Your task to perform on an android device: toggle notifications settings in the gmail app Image 0: 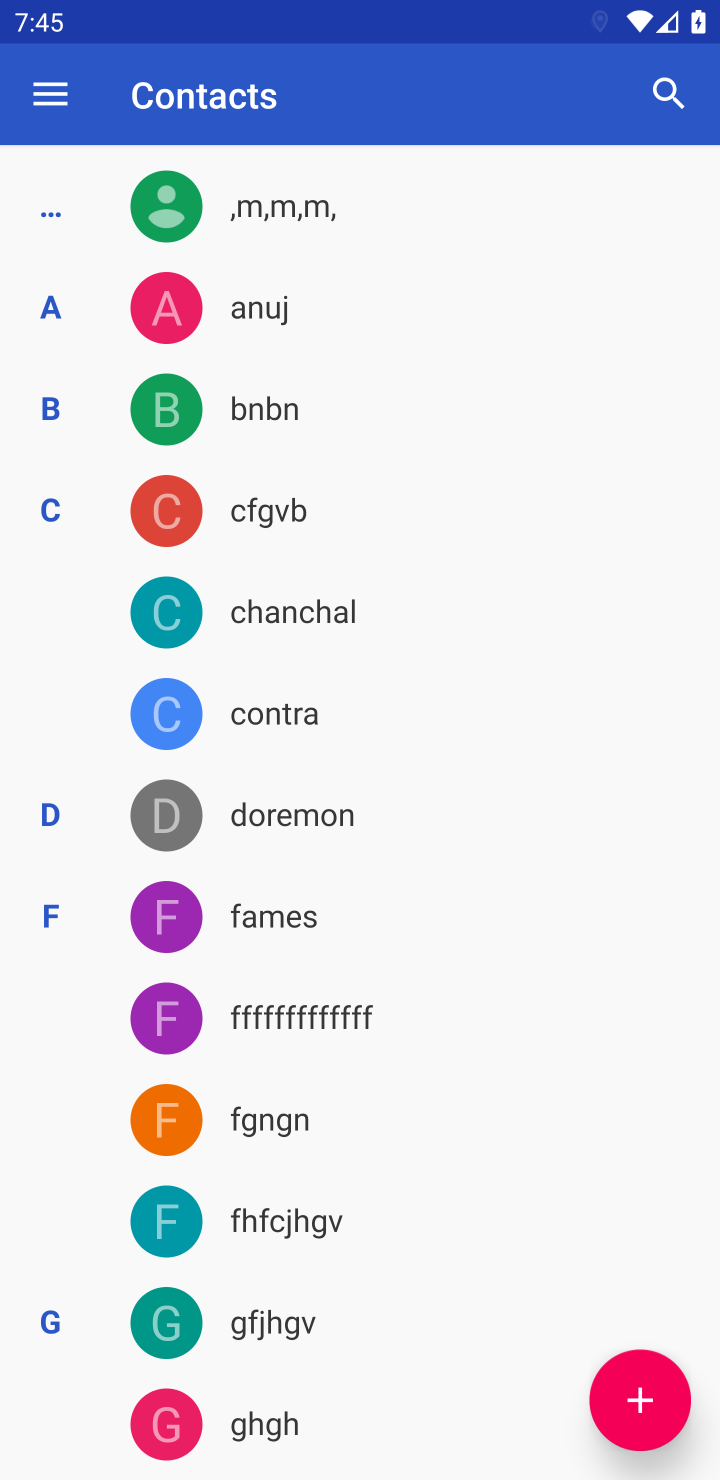
Step 0: press home button
Your task to perform on an android device: toggle notifications settings in the gmail app Image 1: 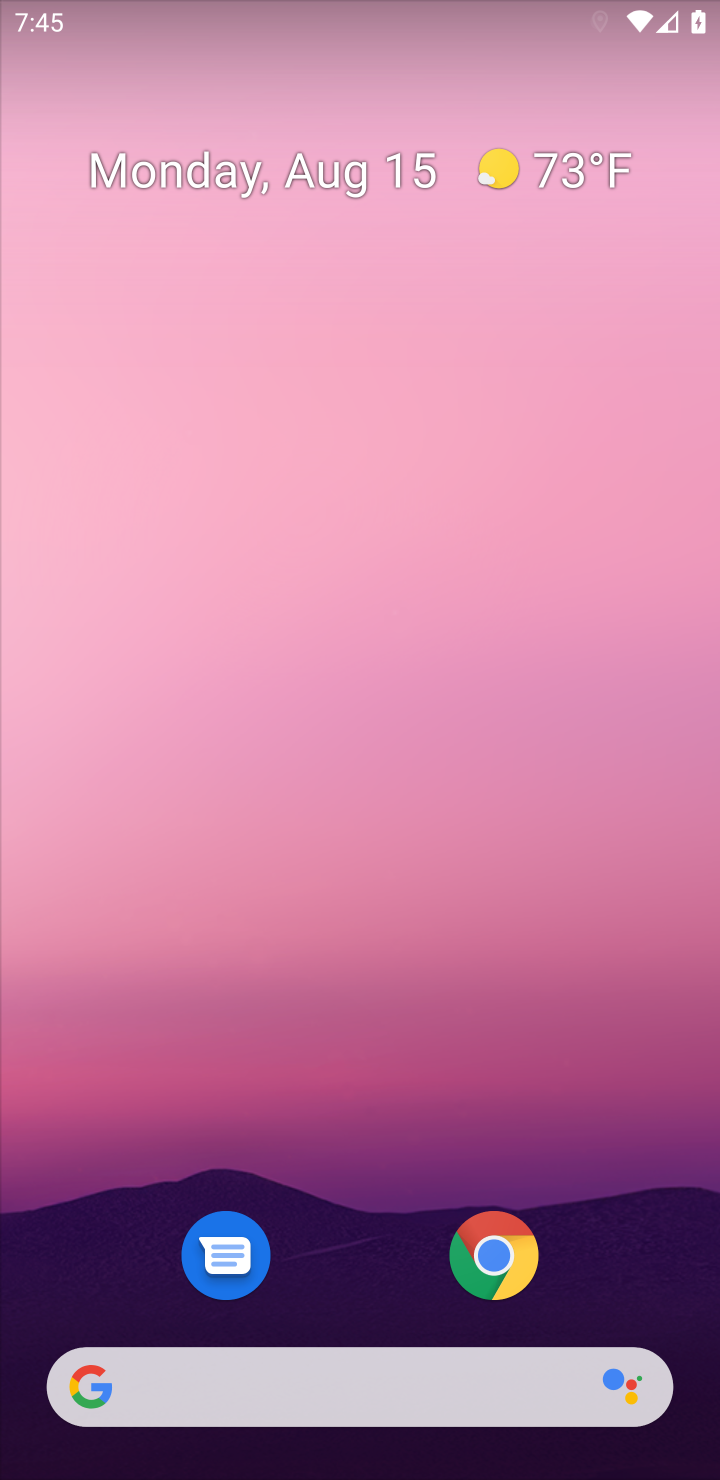
Step 1: drag from (376, 1317) to (455, 67)
Your task to perform on an android device: toggle notifications settings in the gmail app Image 2: 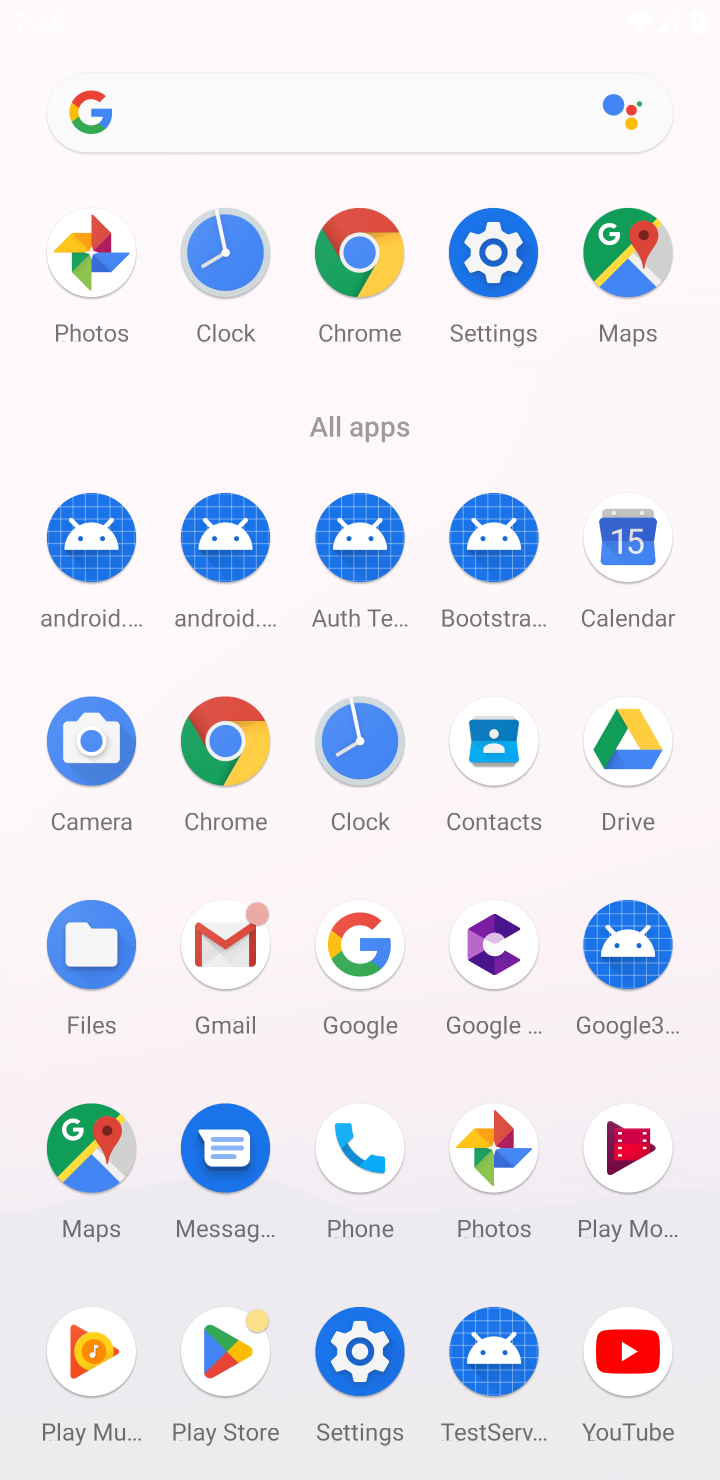
Step 2: click (212, 937)
Your task to perform on an android device: toggle notifications settings in the gmail app Image 3: 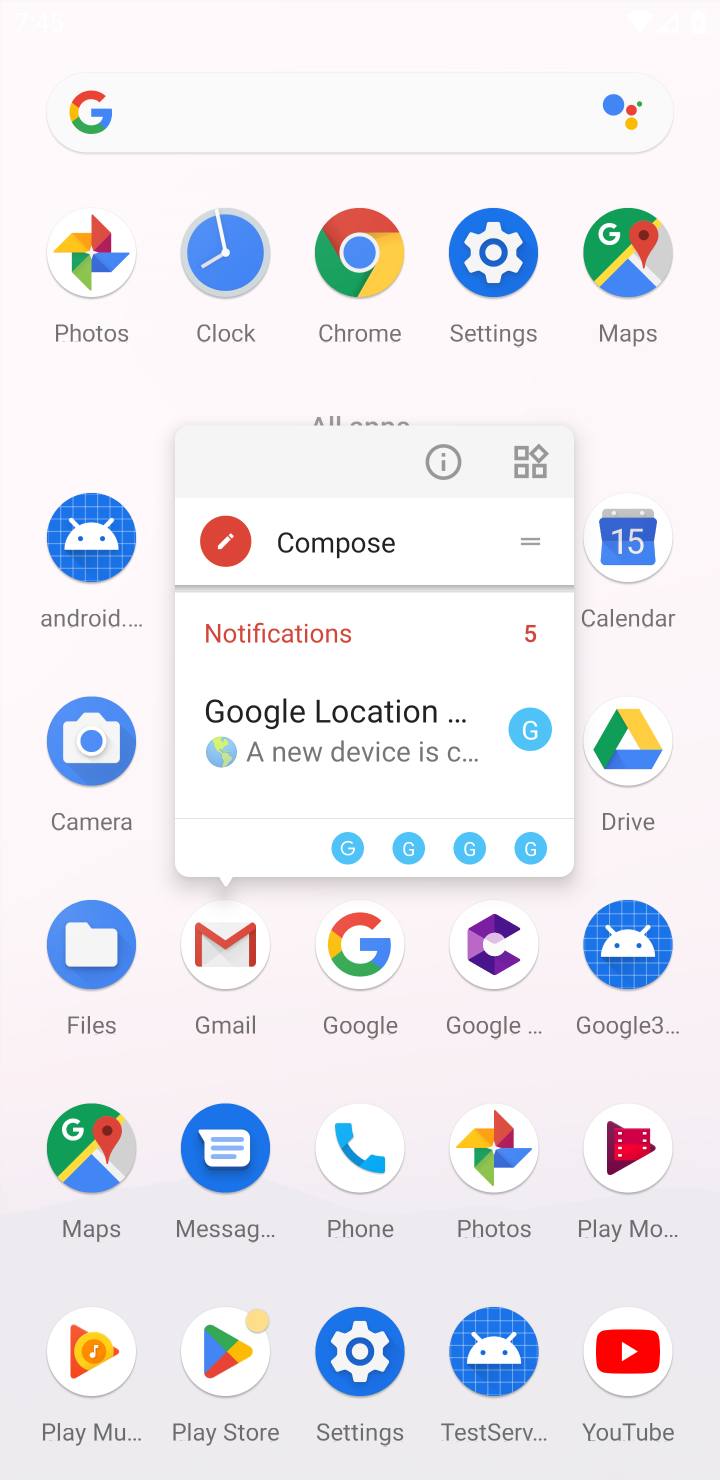
Step 3: click (222, 938)
Your task to perform on an android device: toggle notifications settings in the gmail app Image 4: 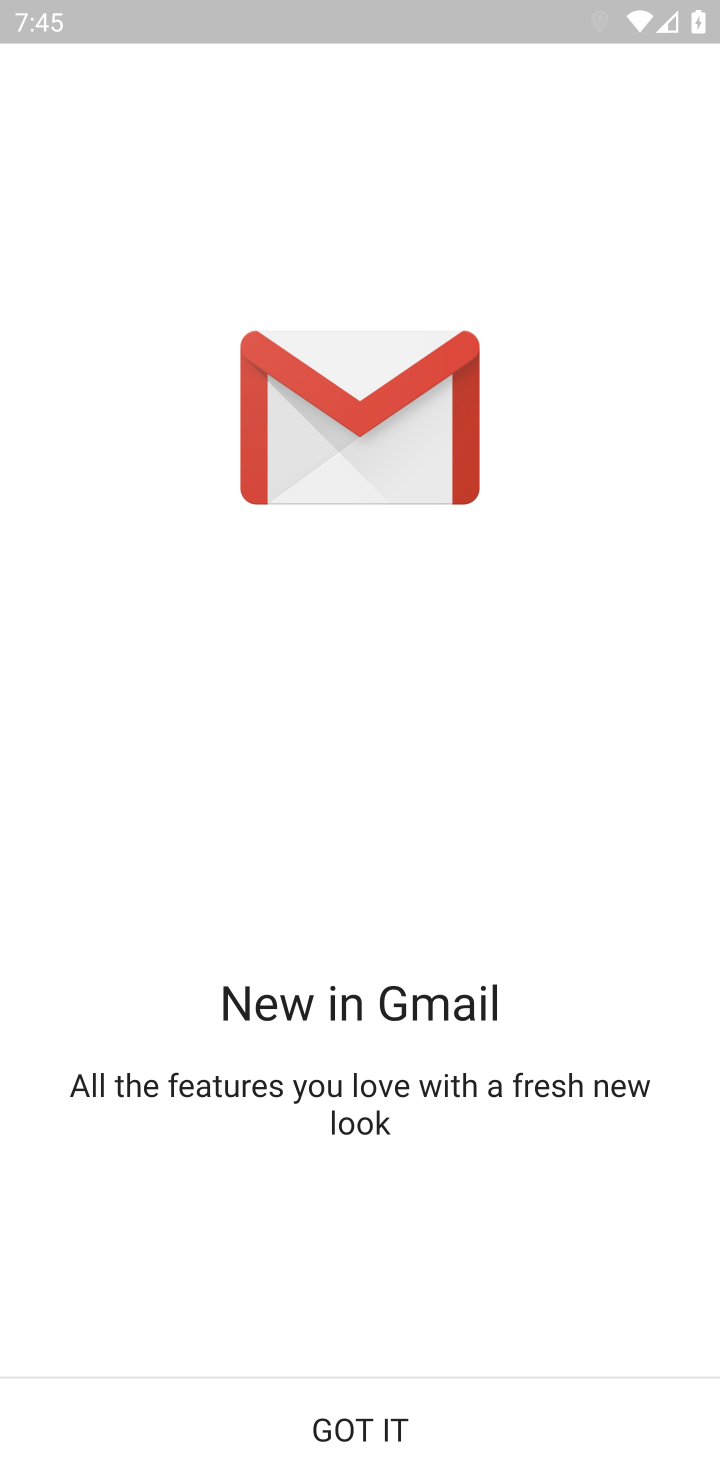
Step 4: click (375, 1434)
Your task to perform on an android device: toggle notifications settings in the gmail app Image 5: 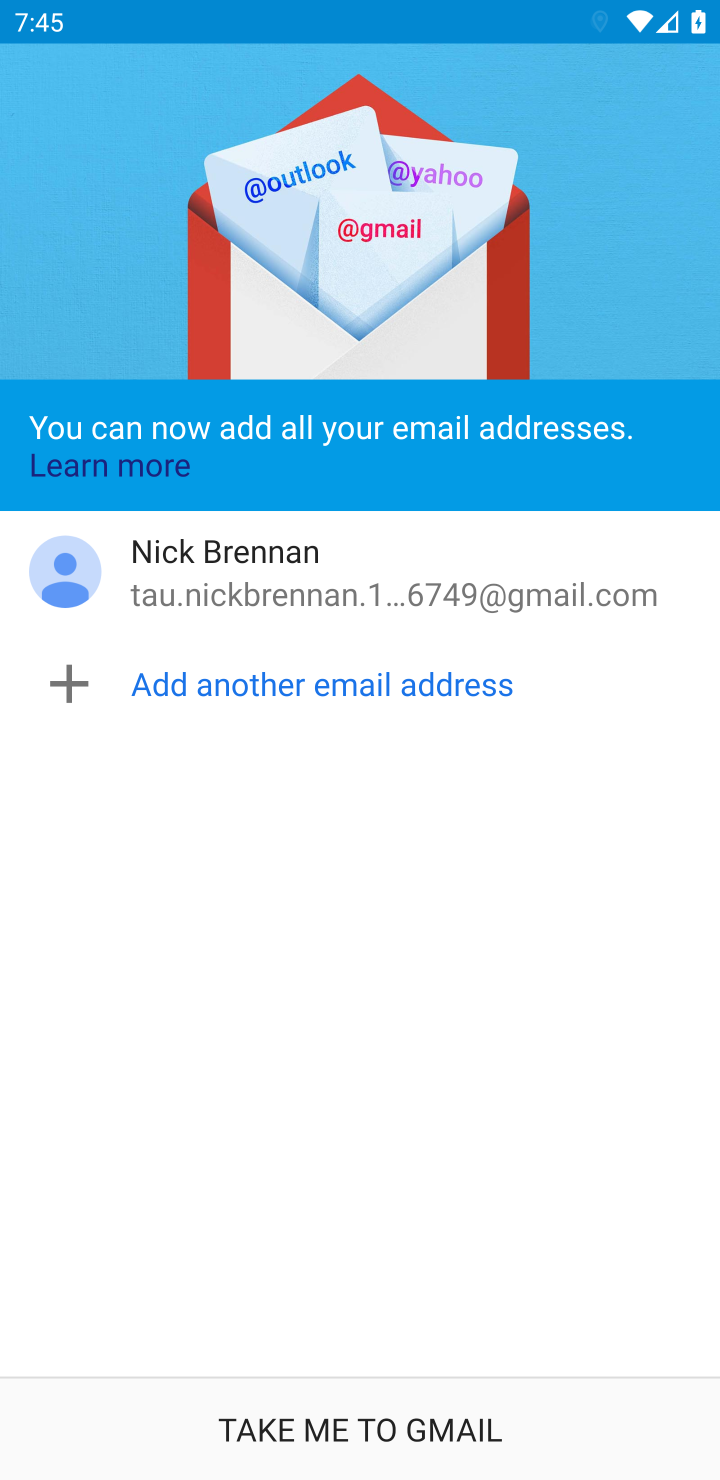
Step 5: click (360, 1446)
Your task to perform on an android device: toggle notifications settings in the gmail app Image 6: 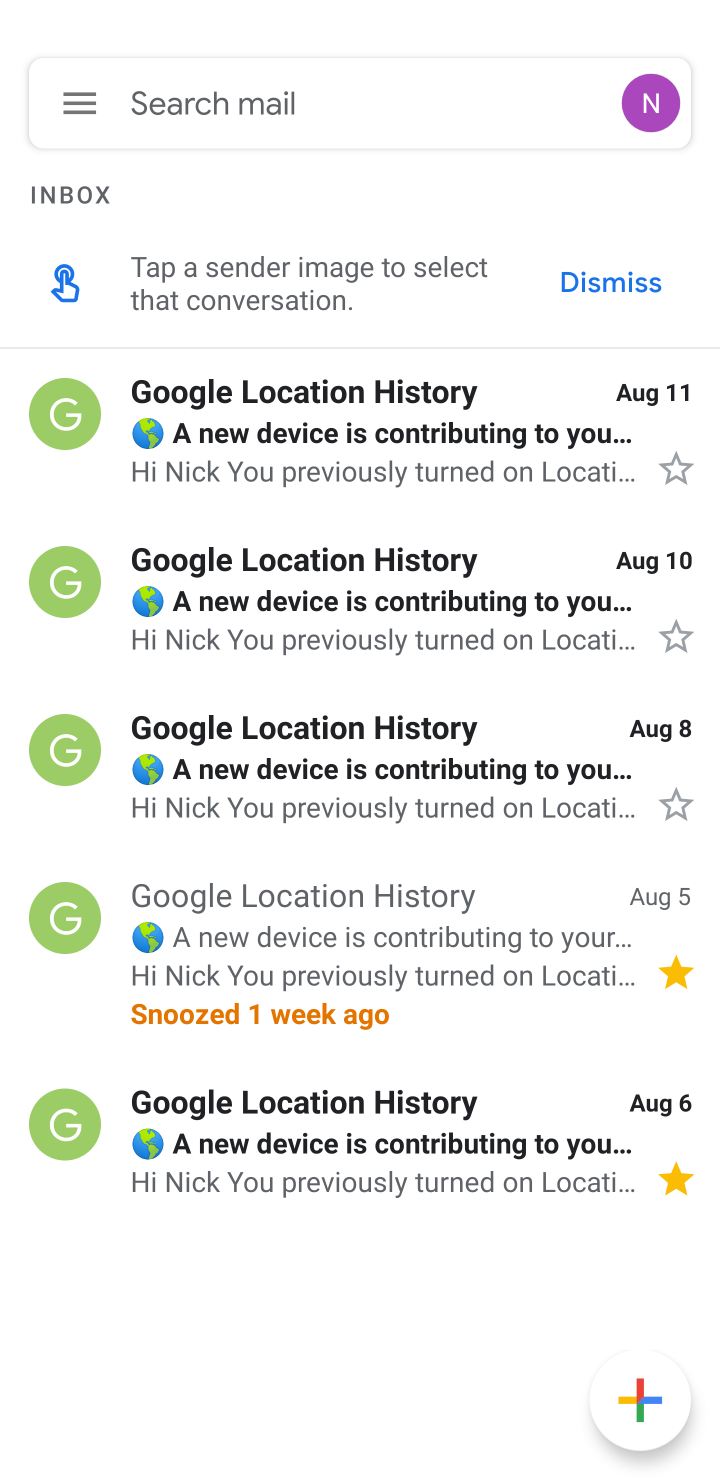
Step 6: click (77, 109)
Your task to perform on an android device: toggle notifications settings in the gmail app Image 7: 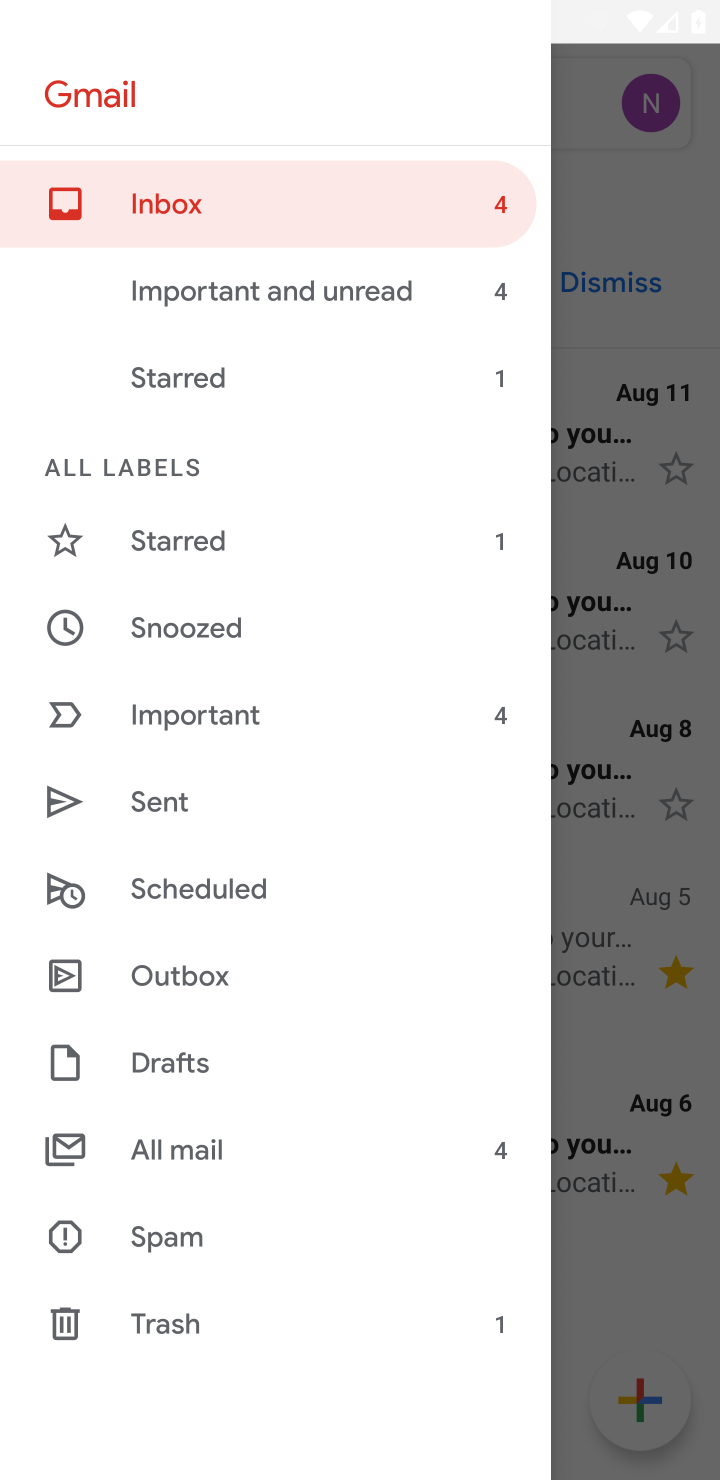
Step 7: drag from (262, 1283) to (254, 258)
Your task to perform on an android device: toggle notifications settings in the gmail app Image 8: 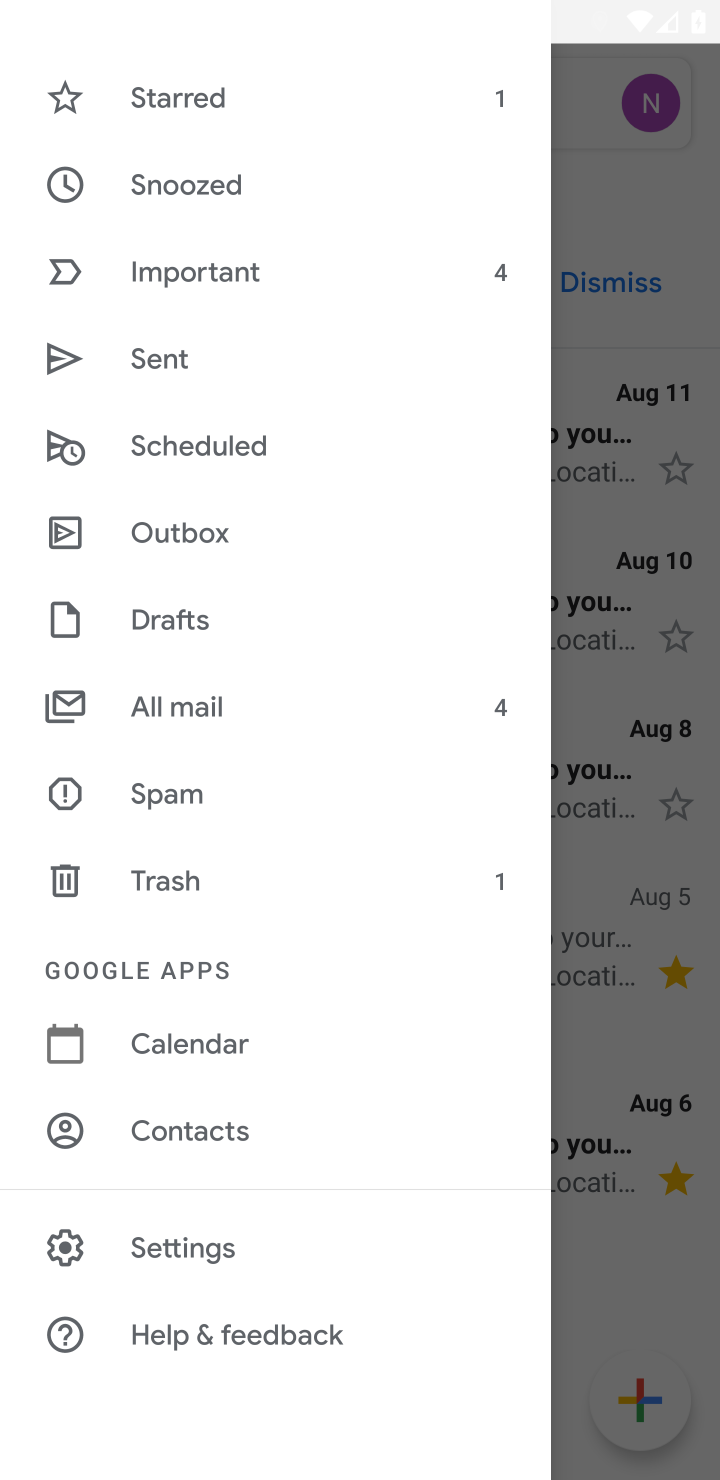
Step 8: click (252, 1234)
Your task to perform on an android device: toggle notifications settings in the gmail app Image 9: 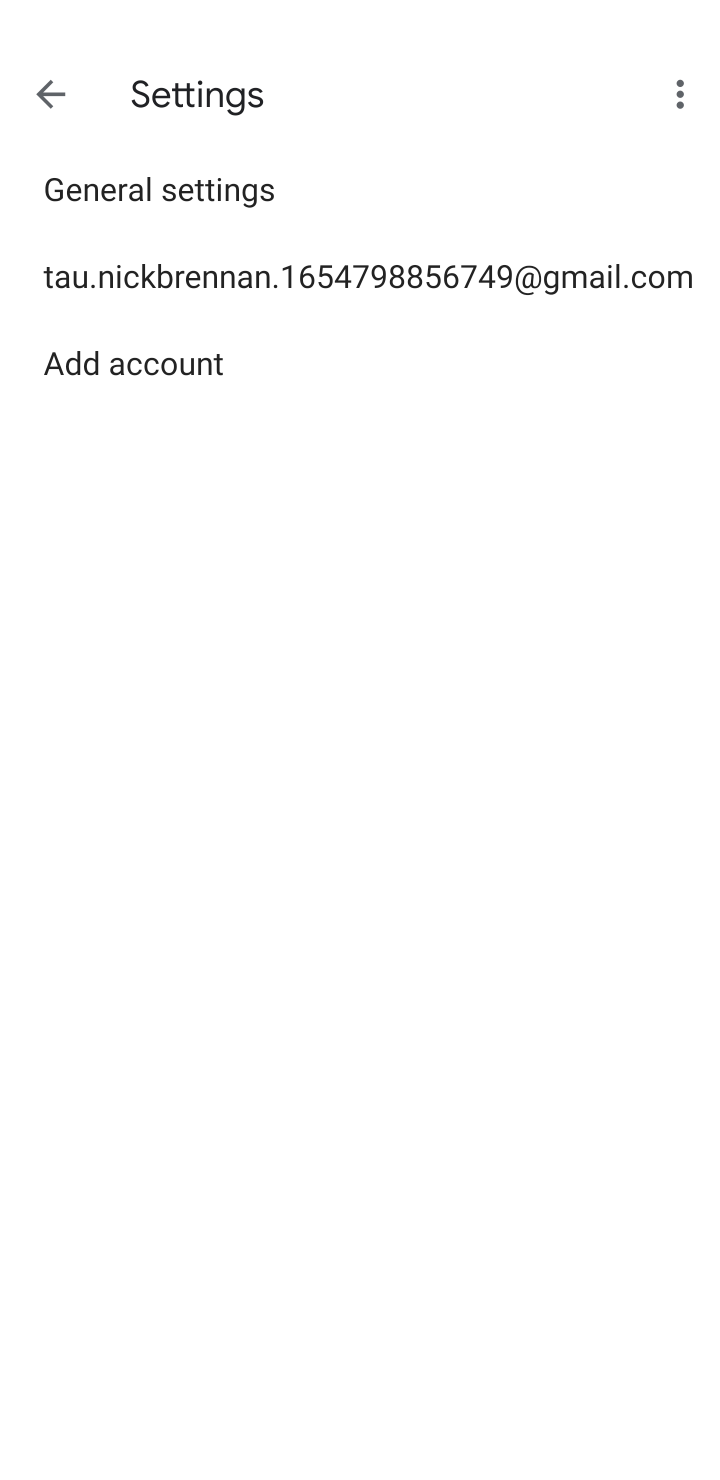
Step 9: click (292, 180)
Your task to perform on an android device: toggle notifications settings in the gmail app Image 10: 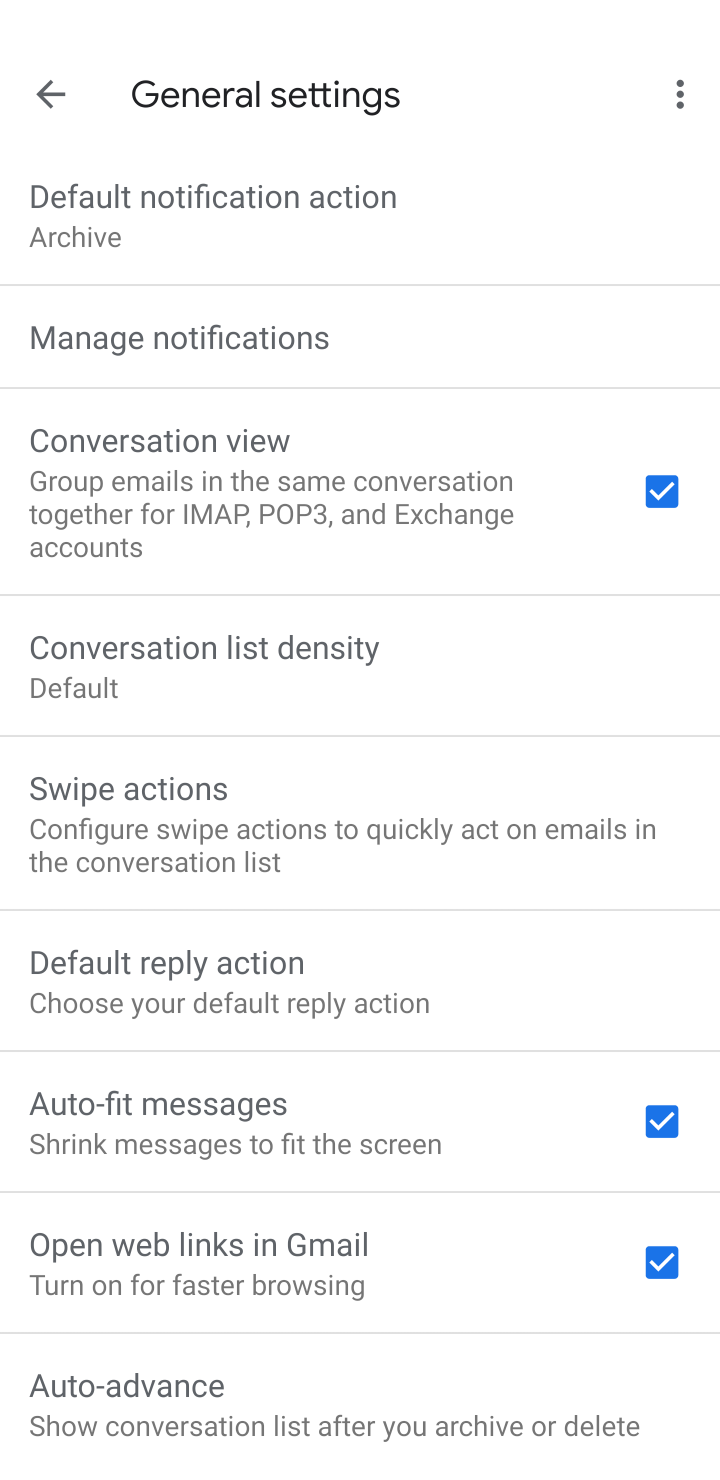
Step 10: click (350, 338)
Your task to perform on an android device: toggle notifications settings in the gmail app Image 11: 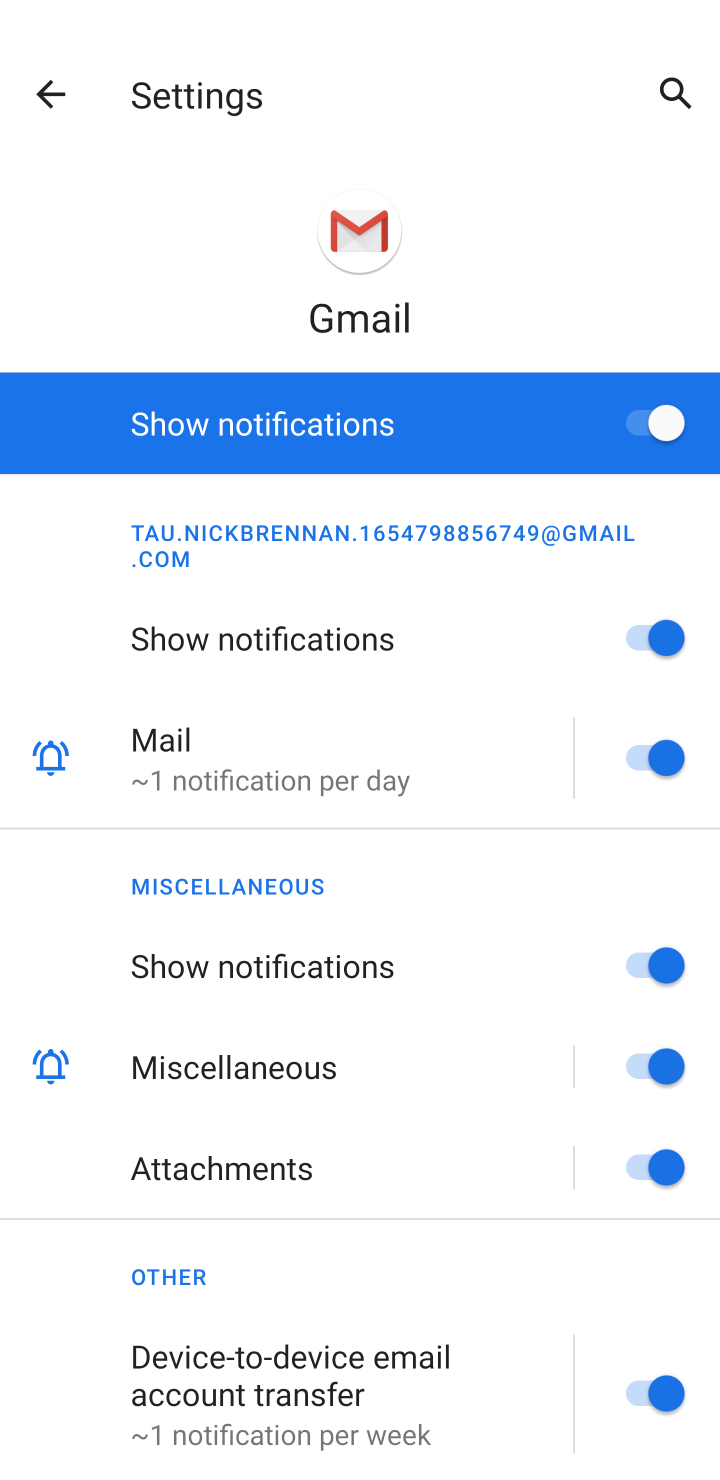
Step 11: click (643, 410)
Your task to perform on an android device: toggle notifications settings in the gmail app Image 12: 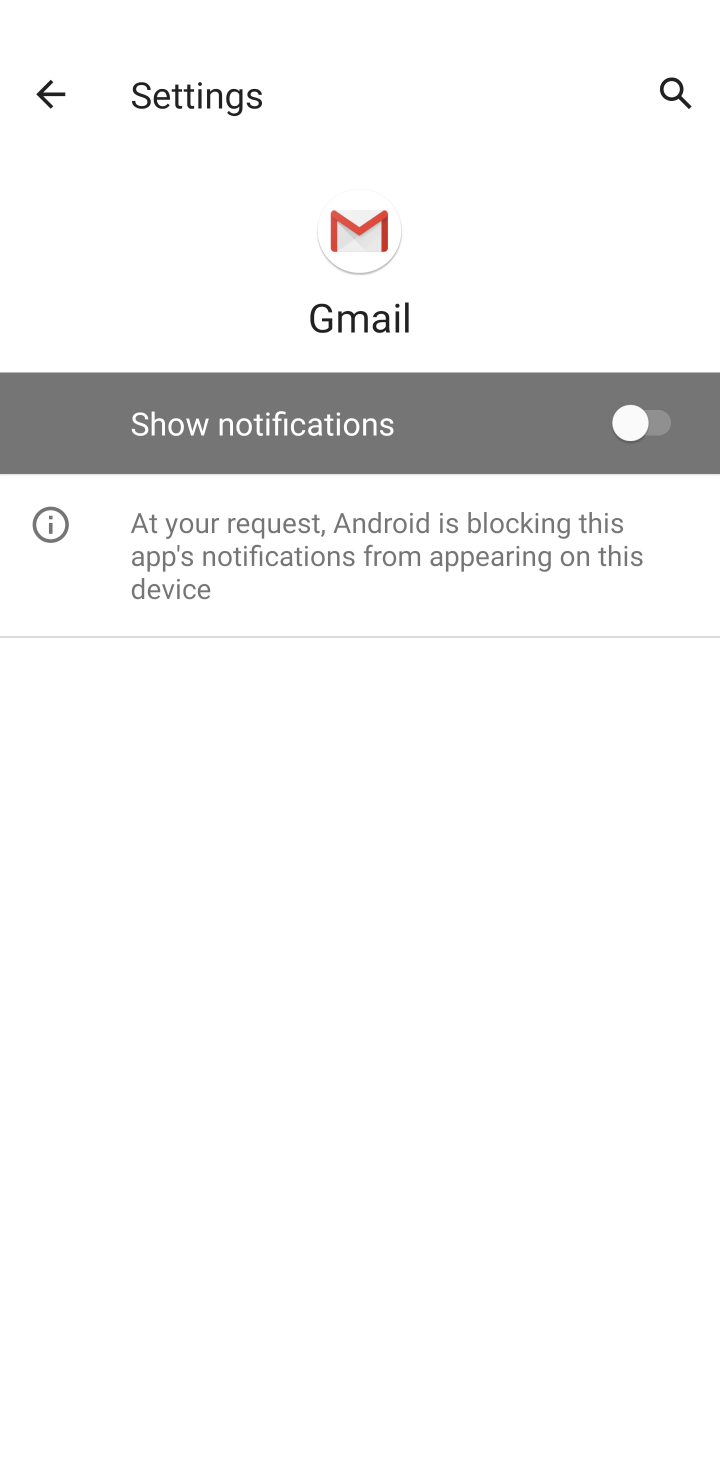
Step 12: task complete